Your task to perform on an android device: turn off notifications settings in the gmail app Image 0: 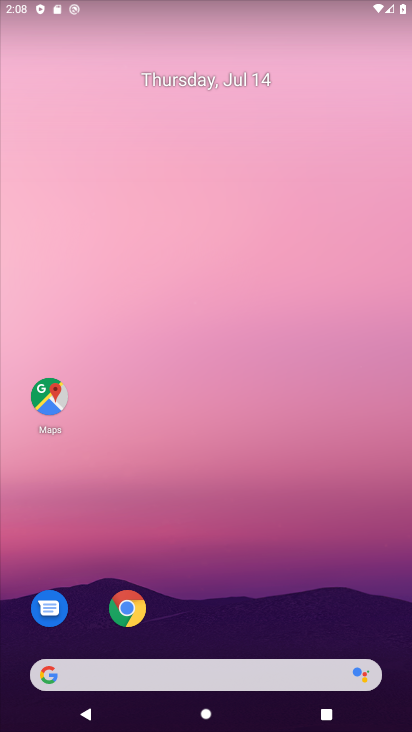
Step 0: drag from (188, 618) to (155, 185)
Your task to perform on an android device: turn off notifications settings in the gmail app Image 1: 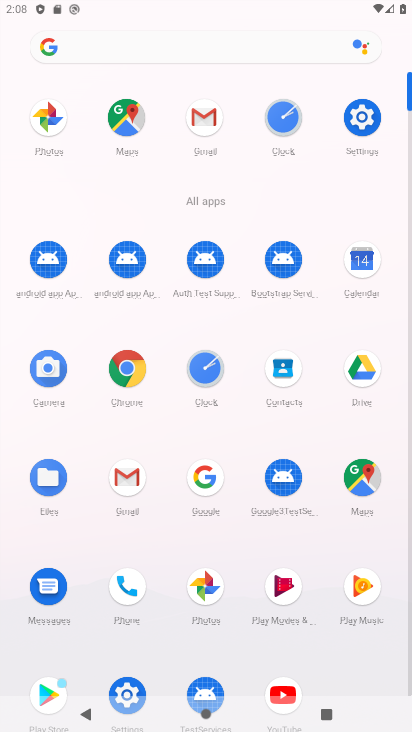
Step 1: drag from (255, 599) to (202, 258)
Your task to perform on an android device: turn off notifications settings in the gmail app Image 2: 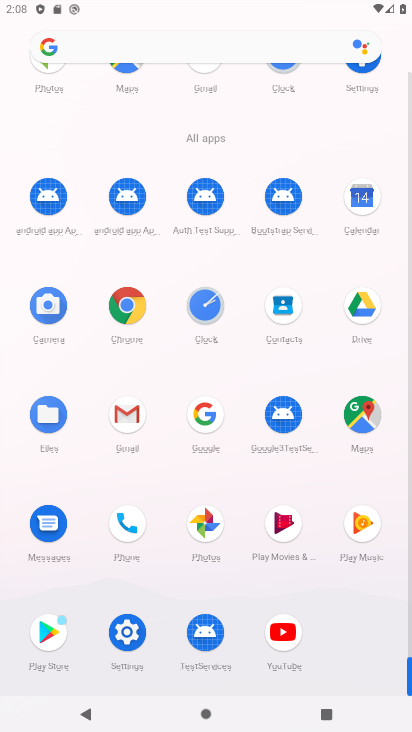
Step 2: click (125, 413)
Your task to perform on an android device: turn off notifications settings in the gmail app Image 3: 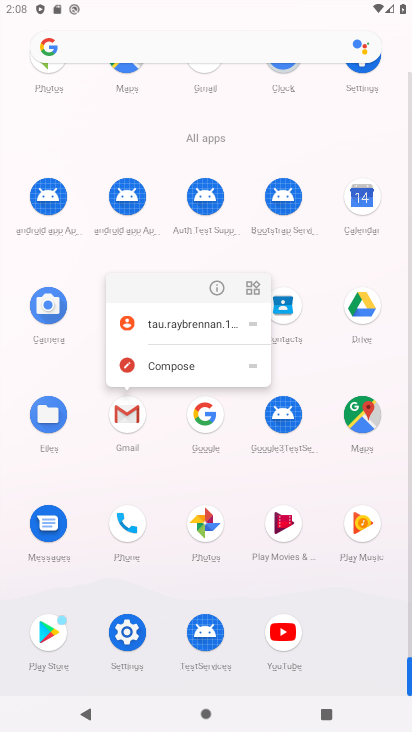
Step 3: click (216, 277)
Your task to perform on an android device: turn off notifications settings in the gmail app Image 4: 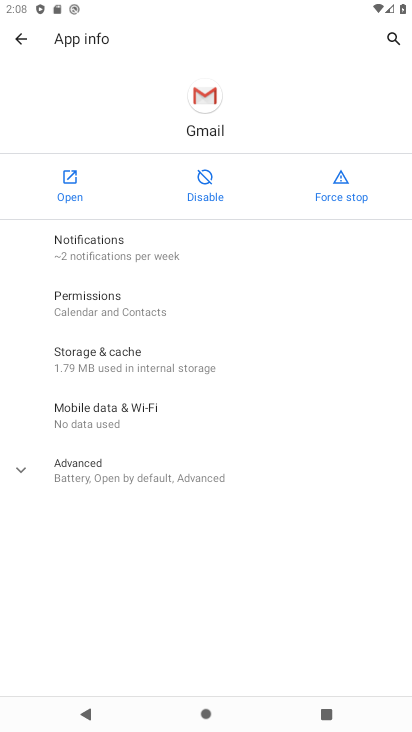
Step 4: click (69, 199)
Your task to perform on an android device: turn off notifications settings in the gmail app Image 5: 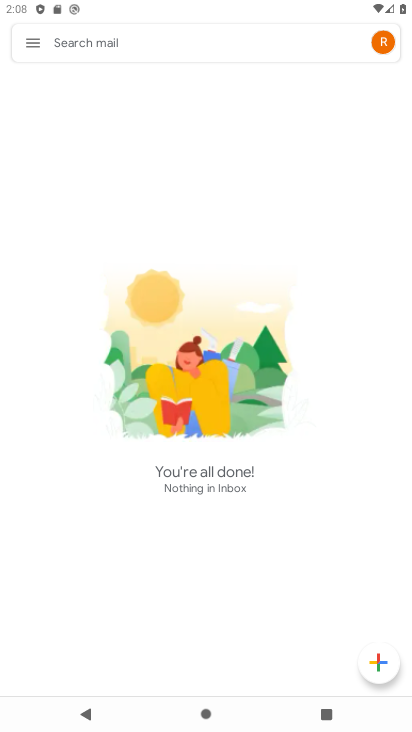
Step 5: click (35, 53)
Your task to perform on an android device: turn off notifications settings in the gmail app Image 6: 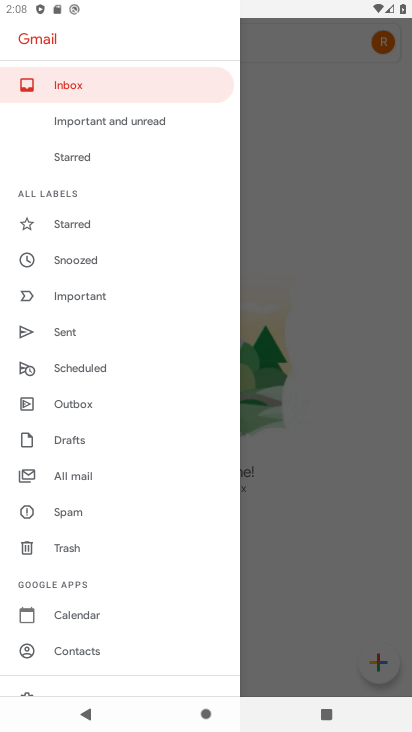
Step 6: drag from (103, 627) to (124, 277)
Your task to perform on an android device: turn off notifications settings in the gmail app Image 7: 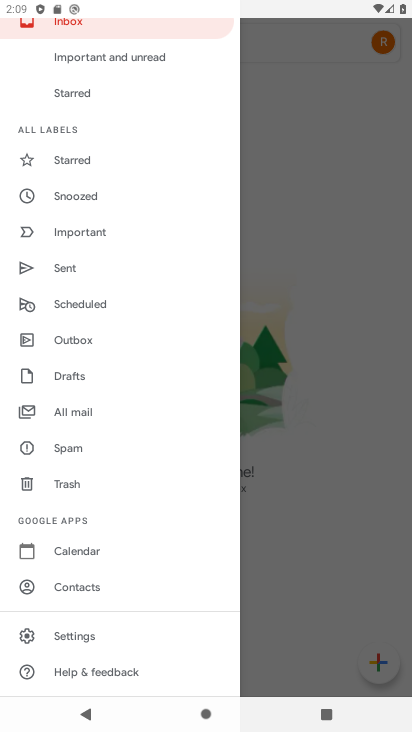
Step 7: click (83, 636)
Your task to perform on an android device: turn off notifications settings in the gmail app Image 8: 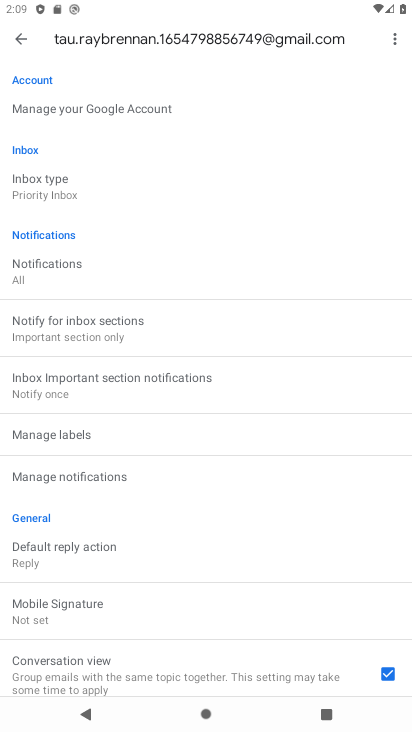
Step 8: drag from (192, 592) to (207, 279)
Your task to perform on an android device: turn off notifications settings in the gmail app Image 9: 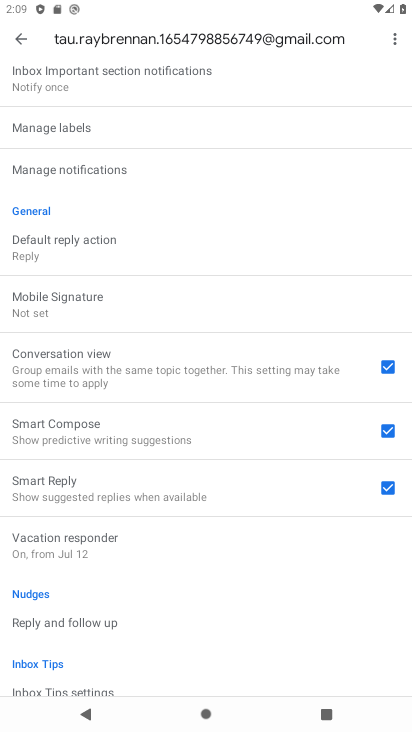
Step 9: click (138, 174)
Your task to perform on an android device: turn off notifications settings in the gmail app Image 10: 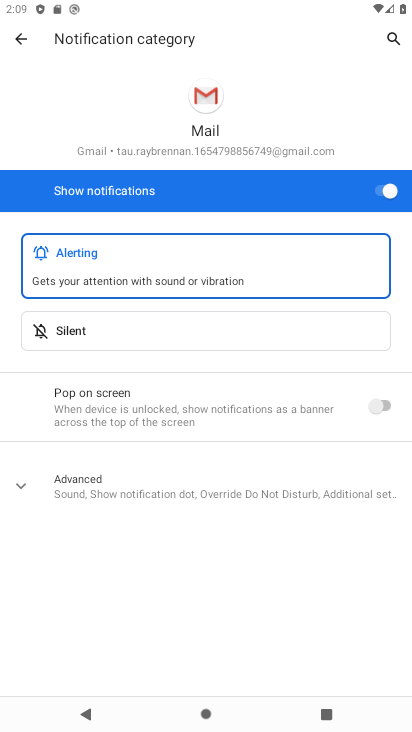
Step 10: click (401, 195)
Your task to perform on an android device: turn off notifications settings in the gmail app Image 11: 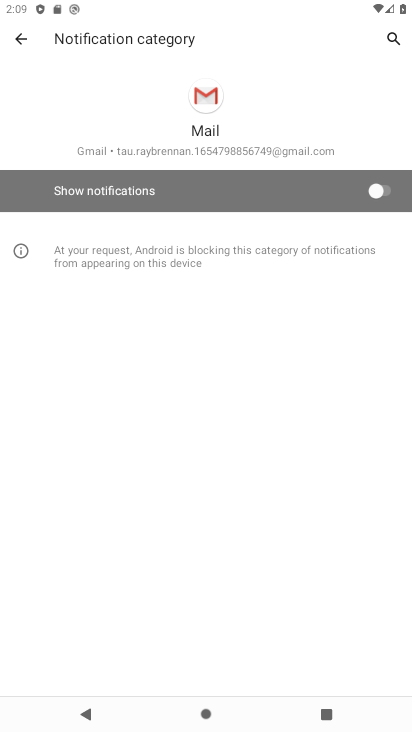
Step 11: task complete